Your task to perform on an android device: Open Chrome and go to settings Image 0: 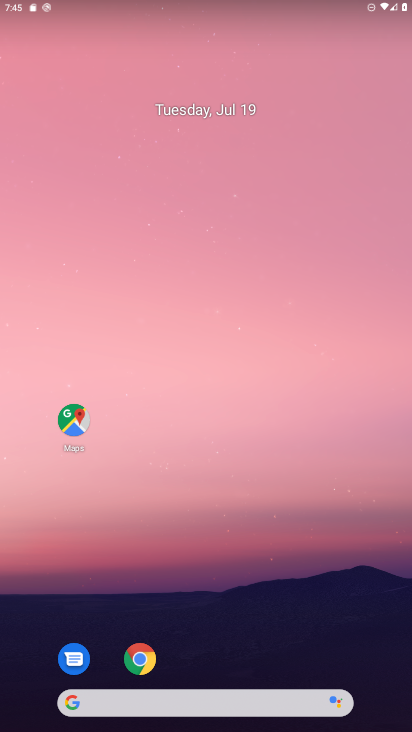
Step 0: drag from (254, 607) to (252, 197)
Your task to perform on an android device: Open Chrome and go to settings Image 1: 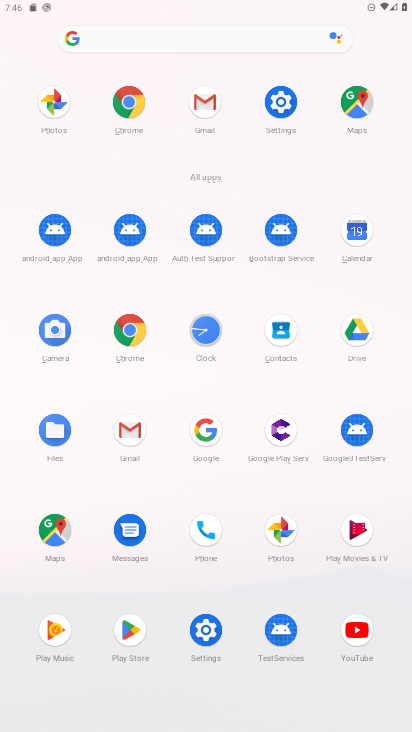
Step 1: click (121, 93)
Your task to perform on an android device: Open Chrome and go to settings Image 2: 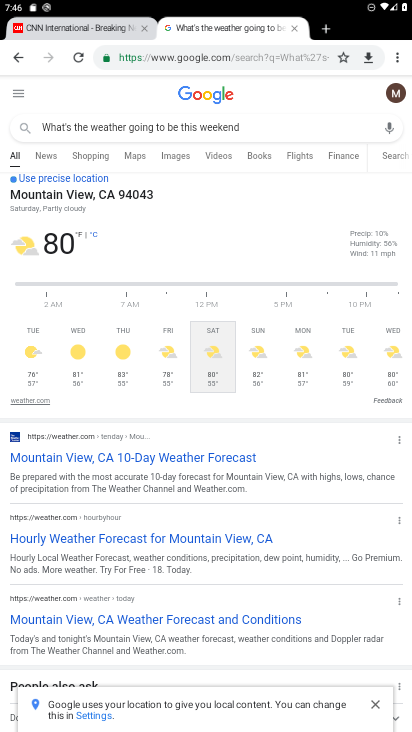
Step 2: click (404, 51)
Your task to perform on an android device: Open Chrome and go to settings Image 3: 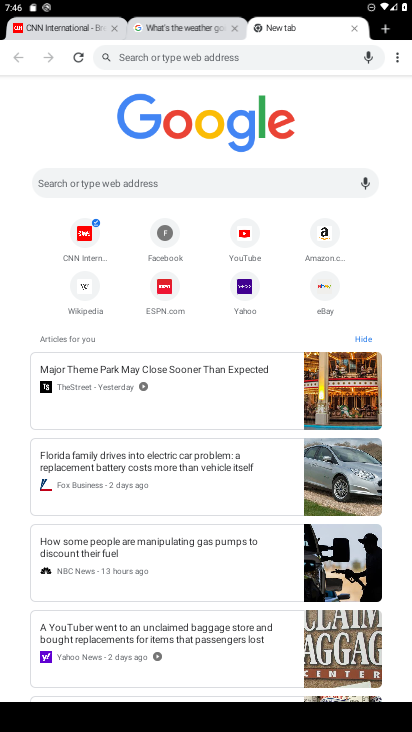
Step 3: click (397, 55)
Your task to perform on an android device: Open Chrome and go to settings Image 4: 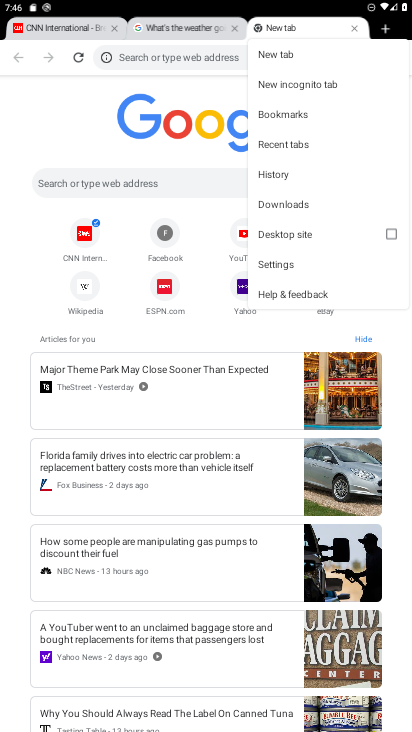
Step 4: click (276, 273)
Your task to perform on an android device: Open Chrome and go to settings Image 5: 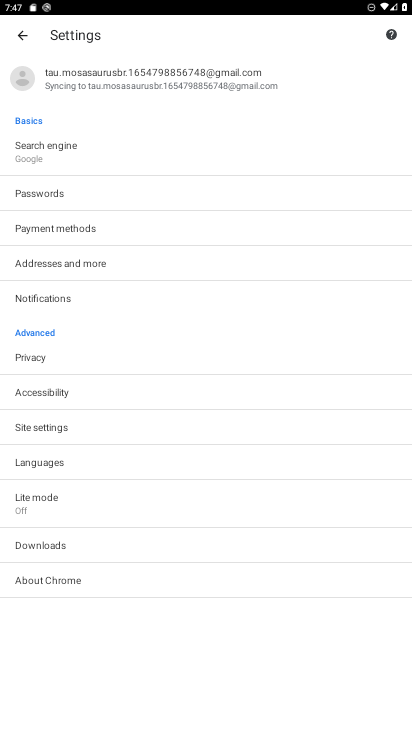
Step 5: task complete